Your task to perform on an android device: Show me popular videos on Youtube Image 0: 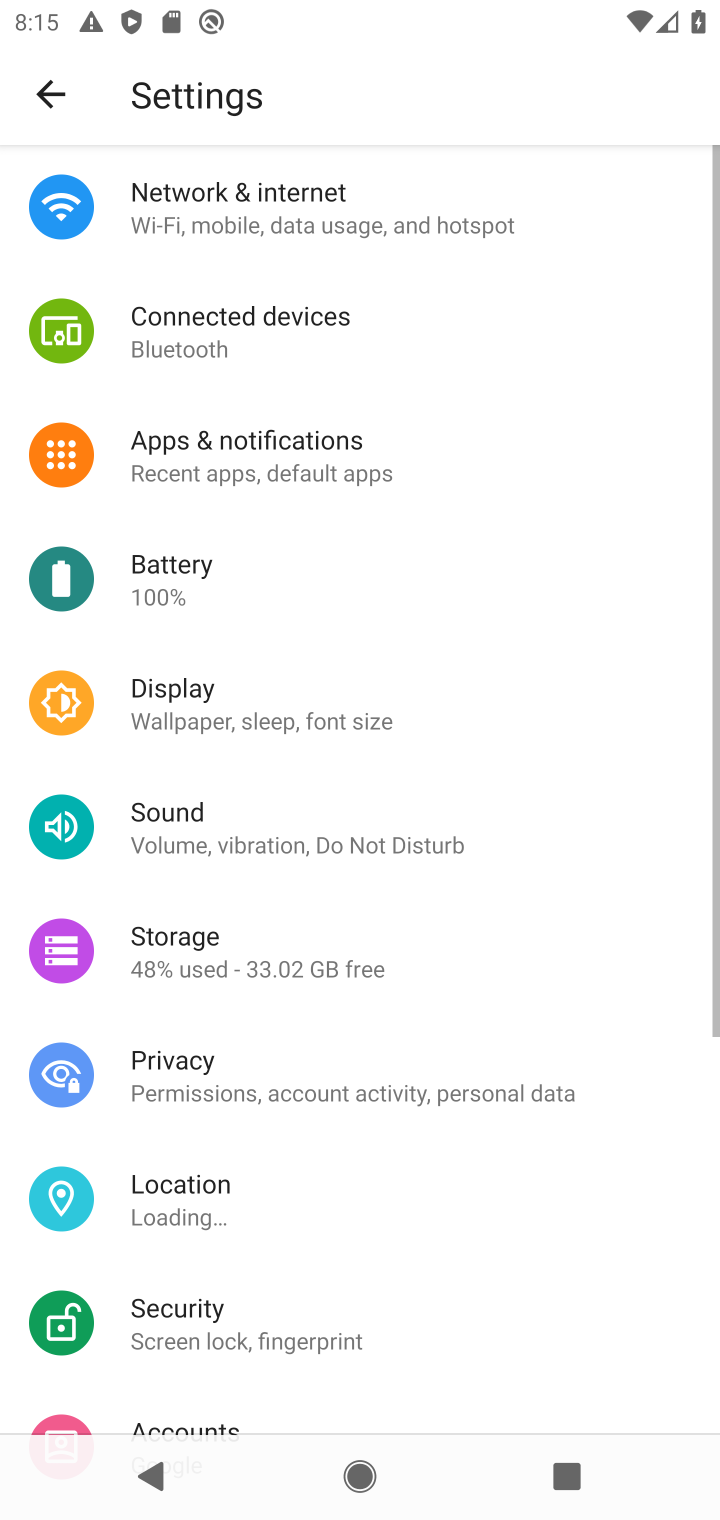
Step 0: press back button
Your task to perform on an android device: Show me popular videos on Youtube Image 1: 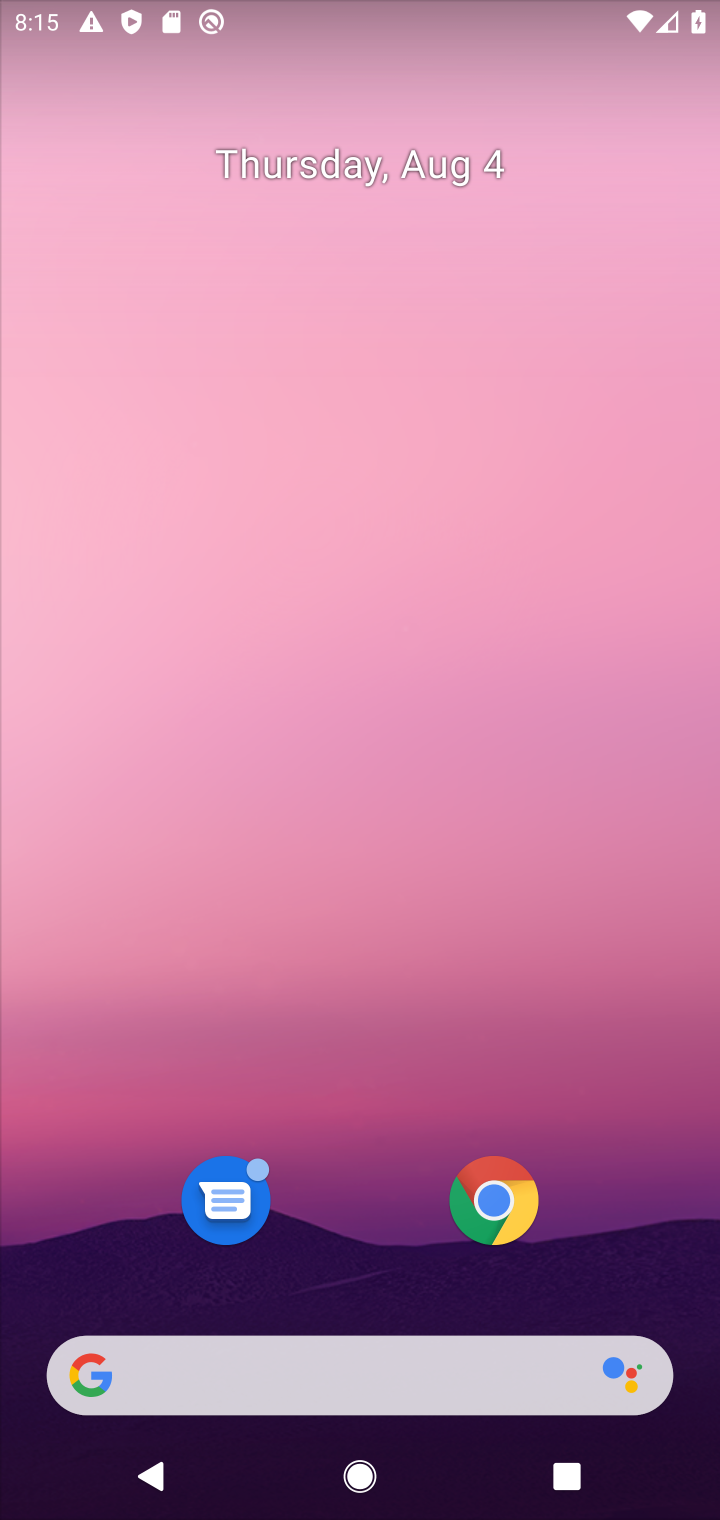
Step 1: click (477, 126)
Your task to perform on an android device: Show me popular videos on Youtube Image 2: 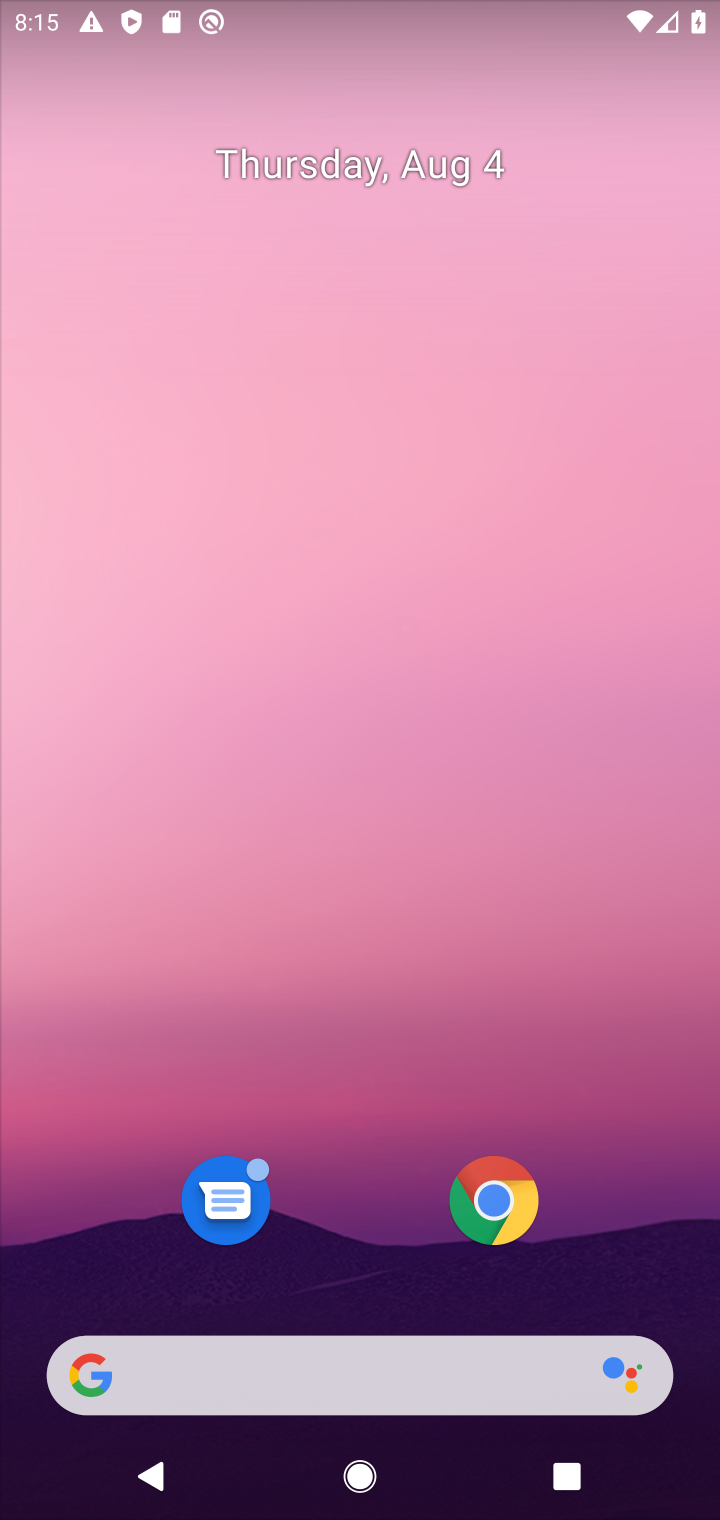
Step 2: click (338, 357)
Your task to perform on an android device: Show me popular videos on Youtube Image 3: 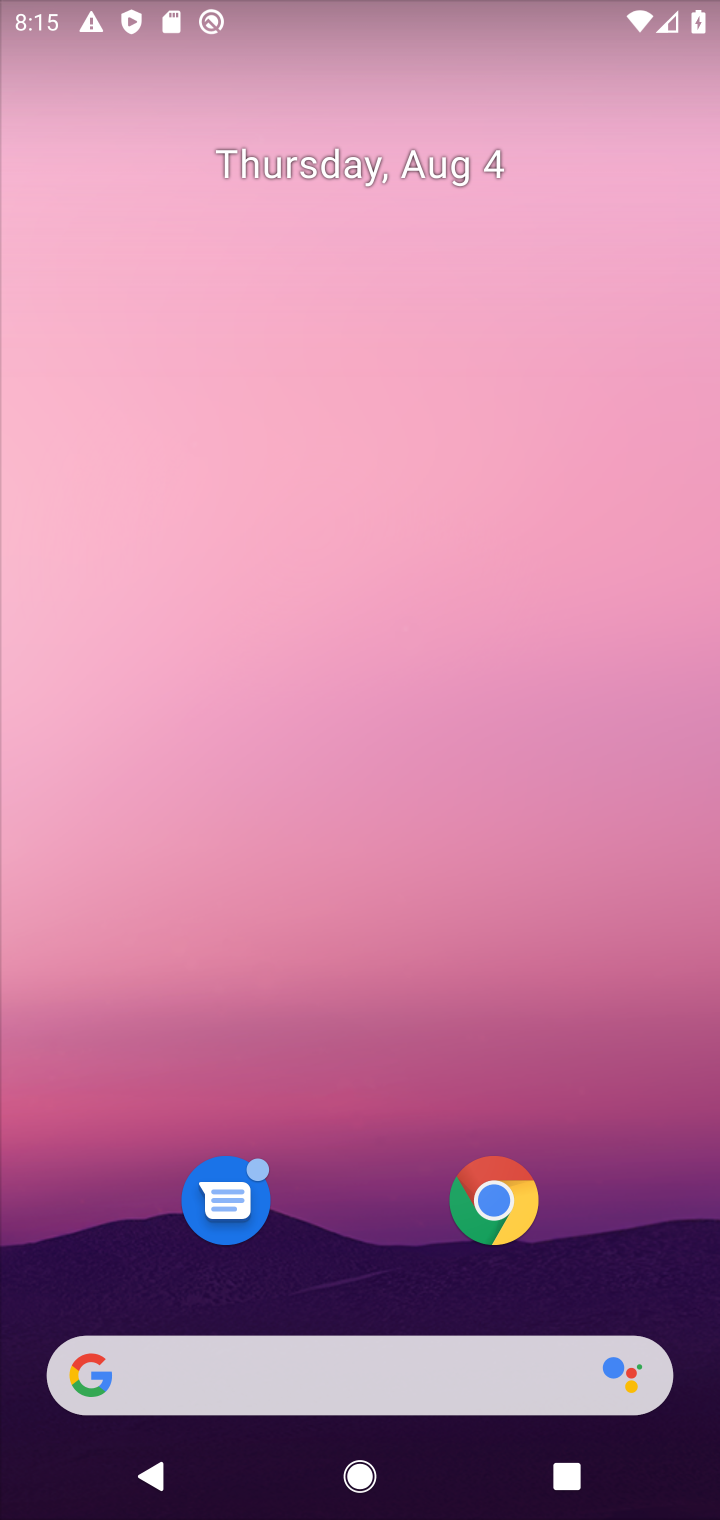
Step 3: click (344, 410)
Your task to perform on an android device: Show me popular videos on Youtube Image 4: 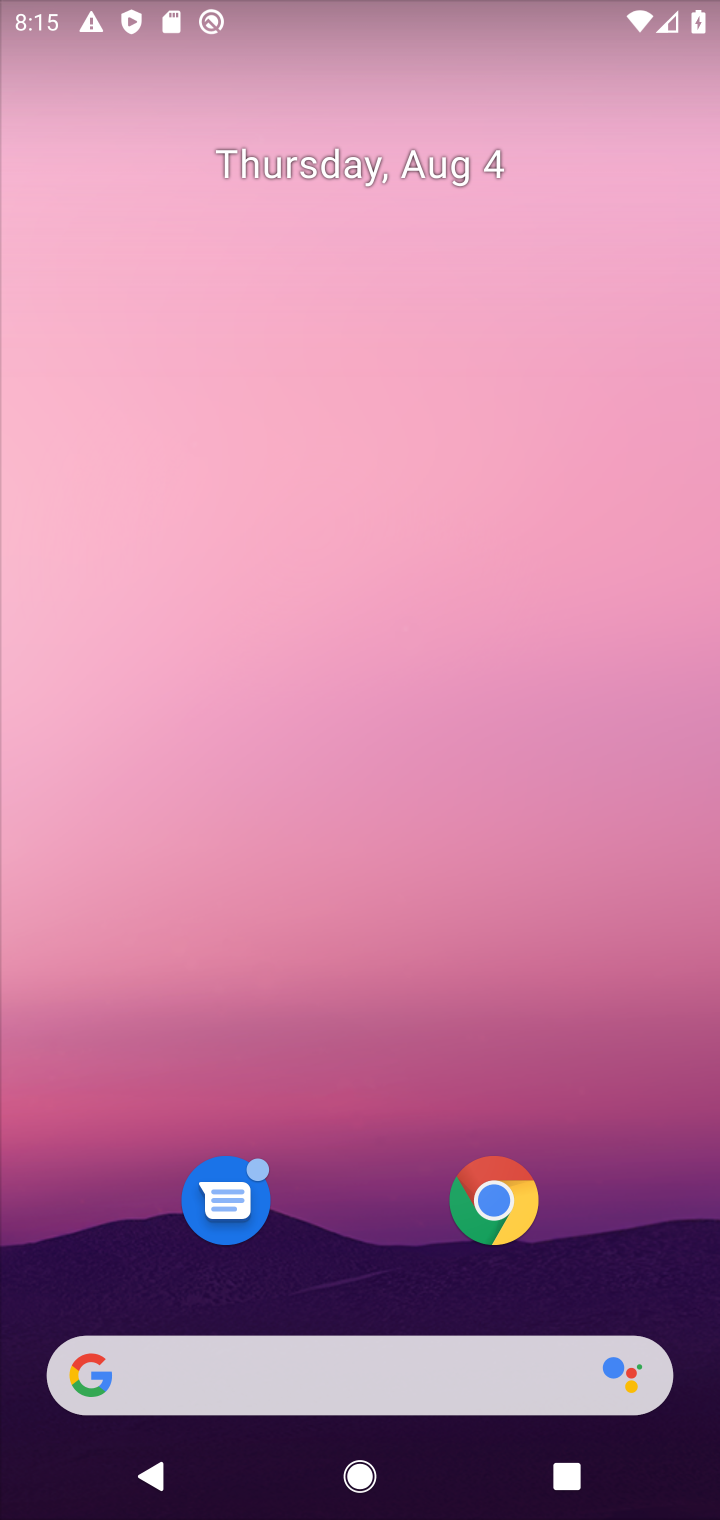
Step 4: click (314, 216)
Your task to perform on an android device: Show me popular videos on Youtube Image 5: 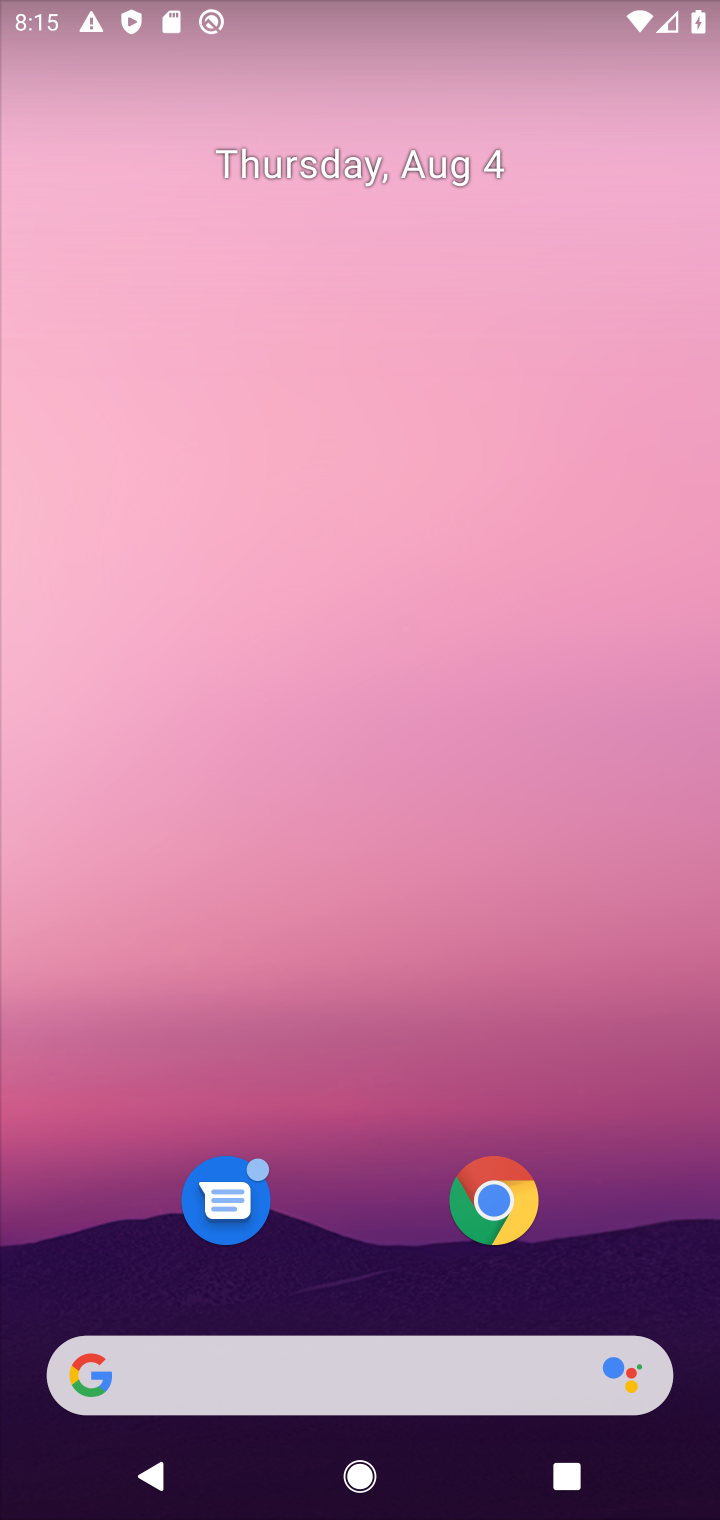
Step 5: drag from (327, 1228) to (388, 294)
Your task to perform on an android device: Show me popular videos on Youtube Image 6: 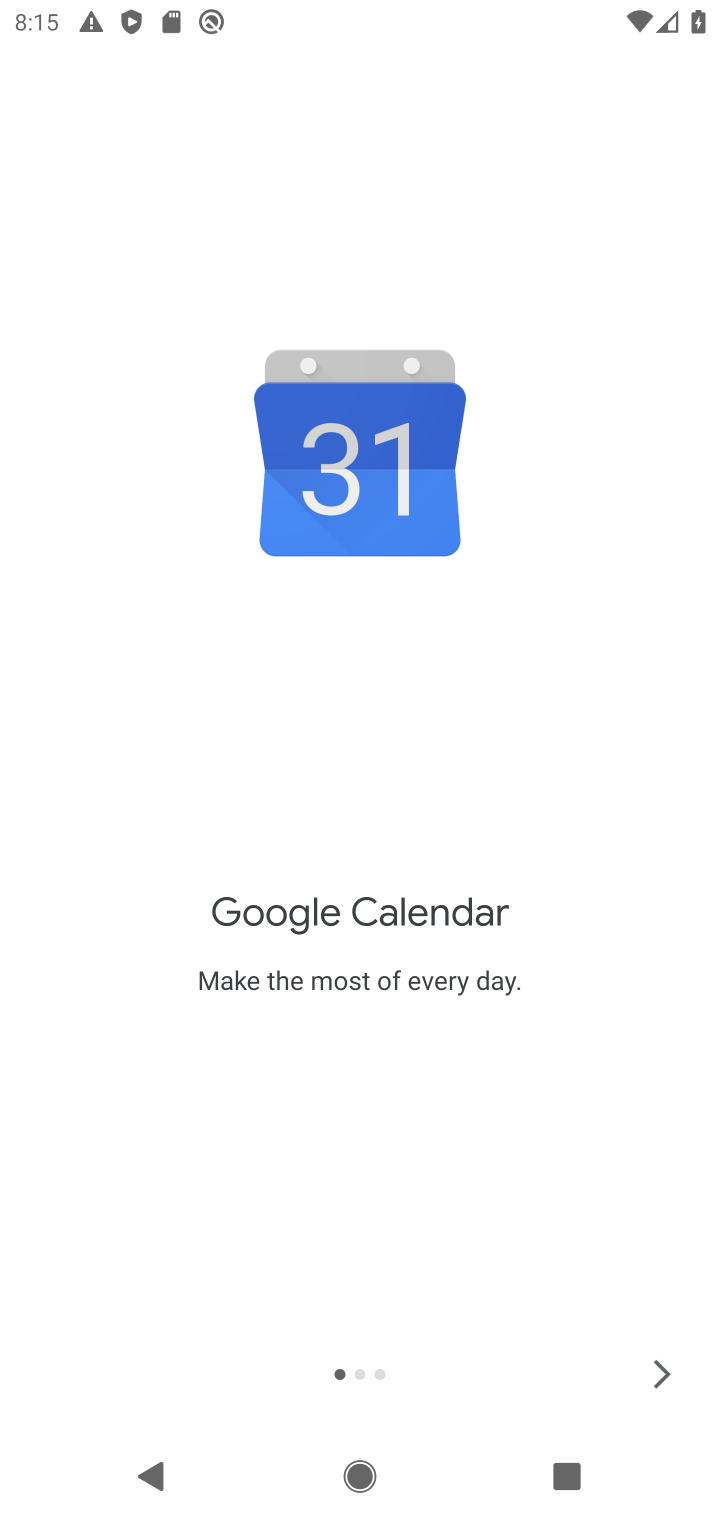
Step 6: press back button
Your task to perform on an android device: Show me popular videos on Youtube Image 7: 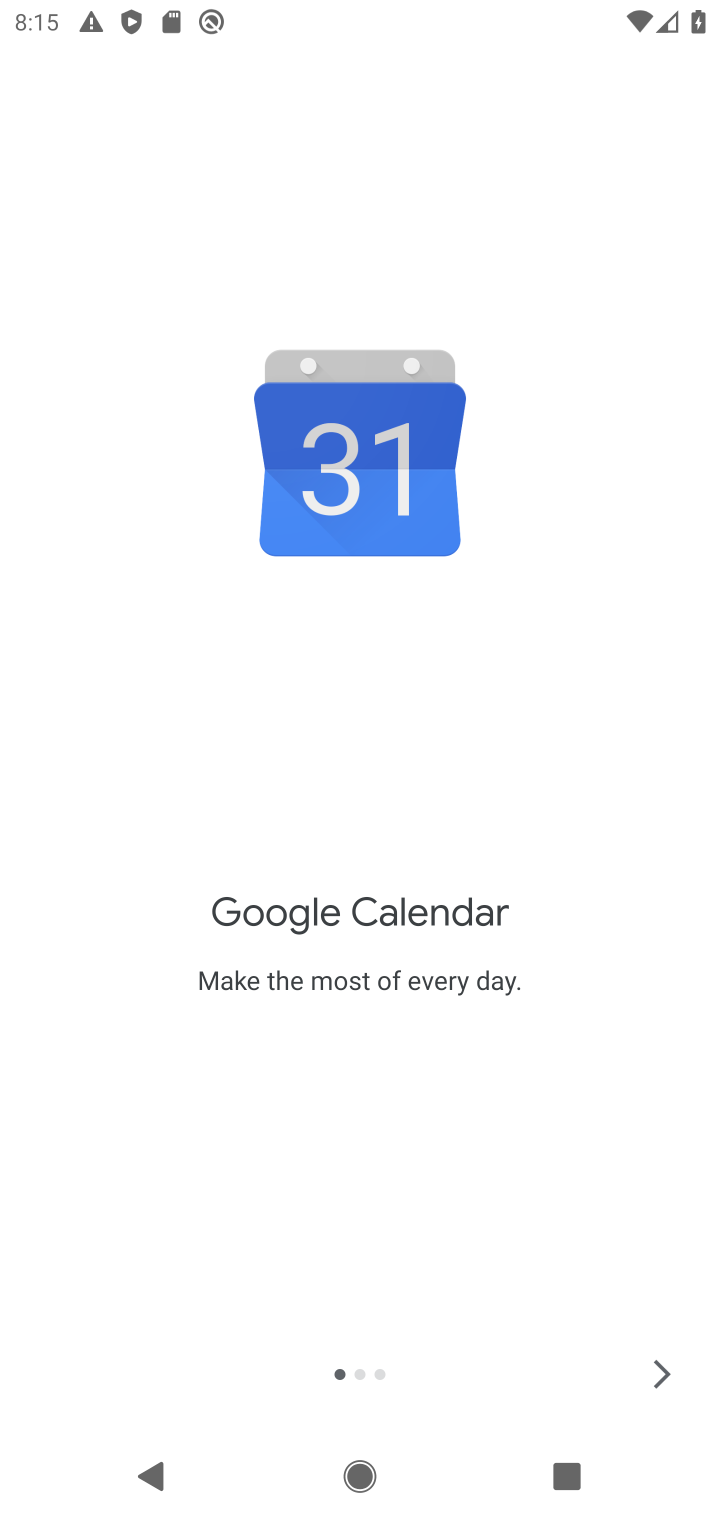
Step 7: press back button
Your task to perform on an android device: Show me popular videos on Youtube Image 8: 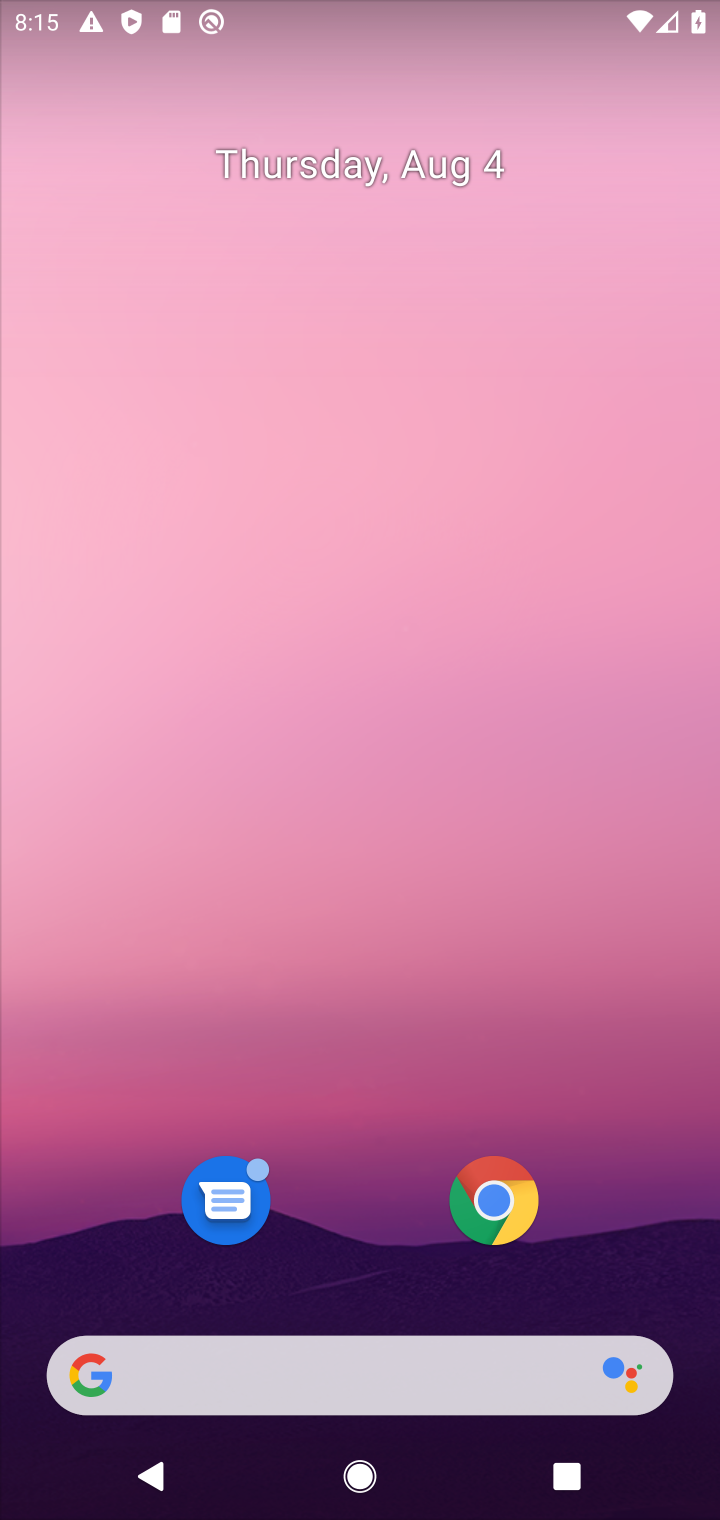
Step 8: drag from (335, 523) to (248, 436)
Your task to perform on an android device: Show me popular videos on Youtube Image 9: 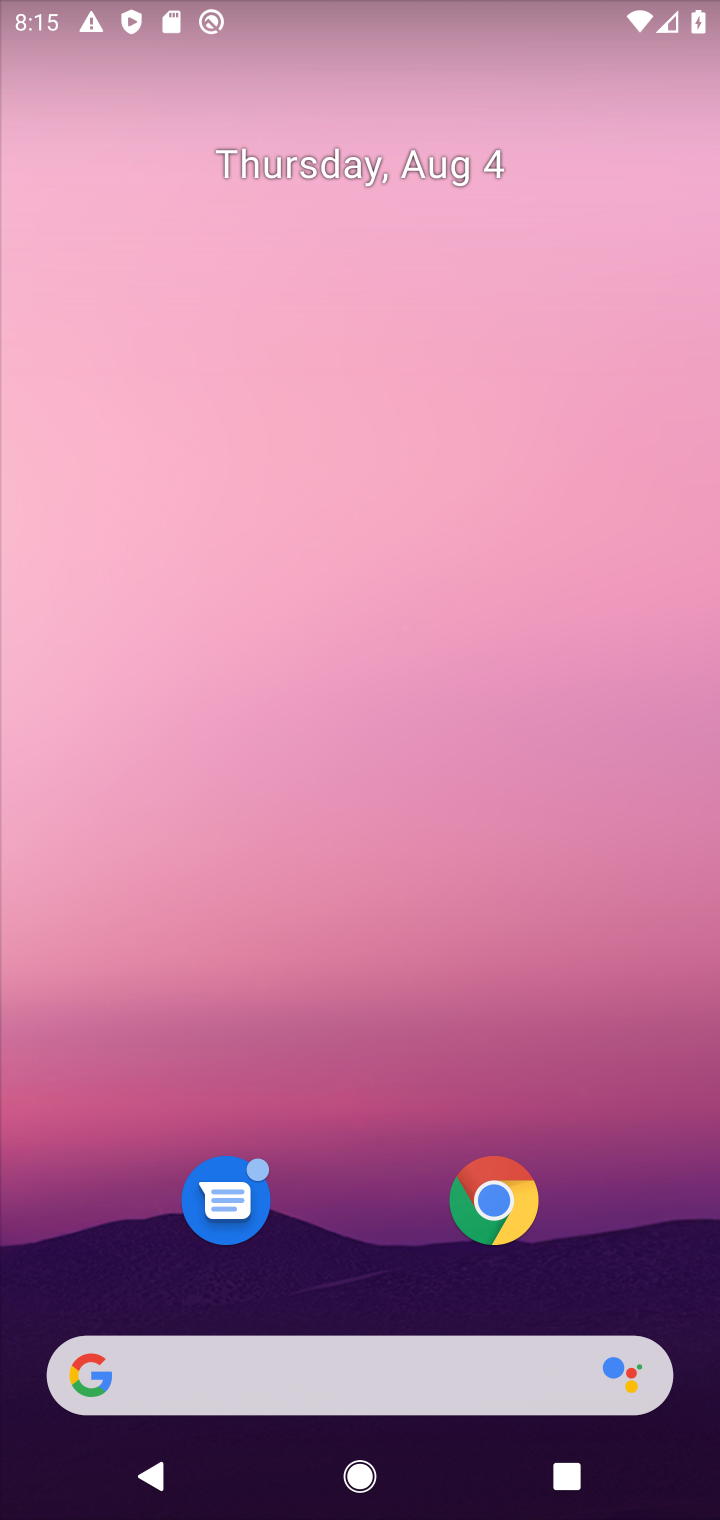
Step 9: click (351, 455)
Your task to perform on an android device: Show me popular videos on Youtube Image 10: 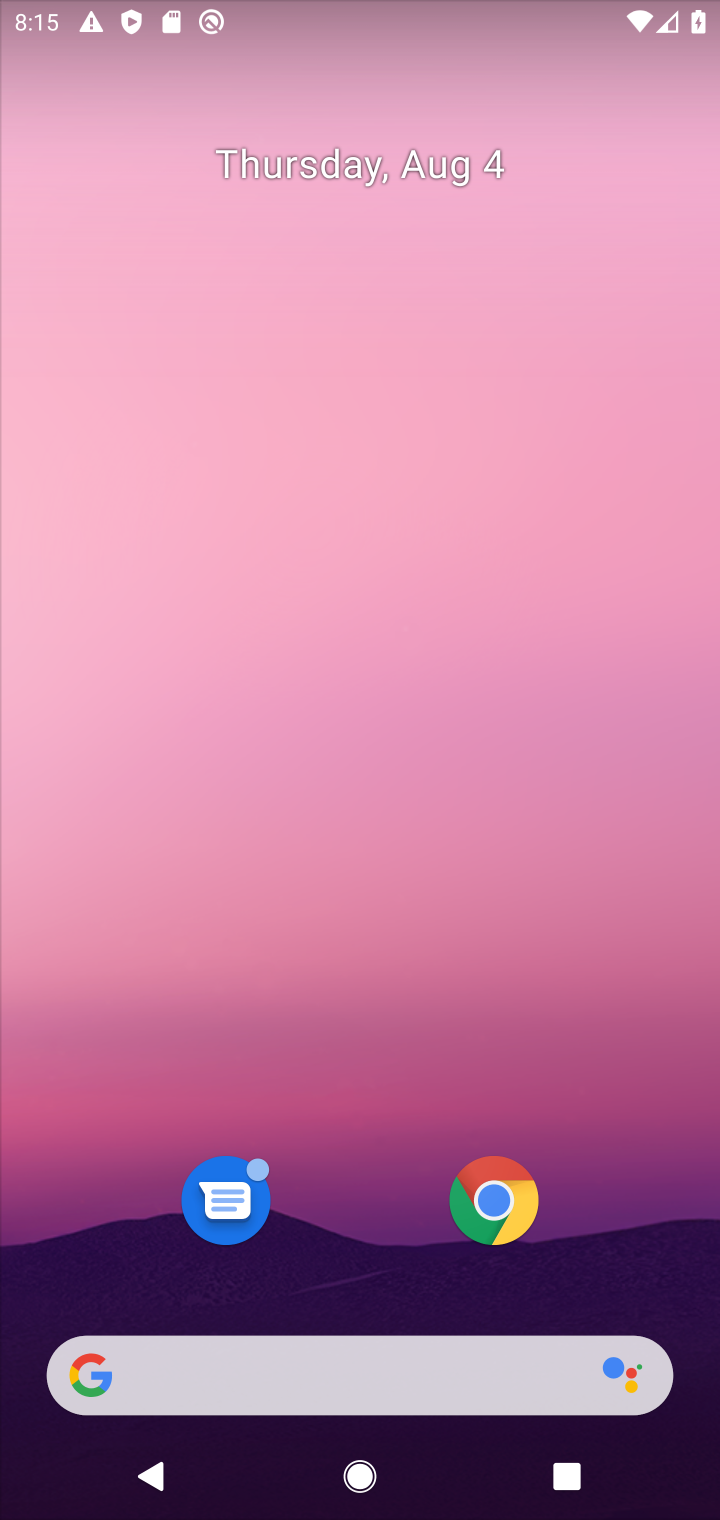
Step 10: drag from (572, 827) to (446, 349)
Your task to perform on an android device: Show me popular videos on Youtube Image 11: 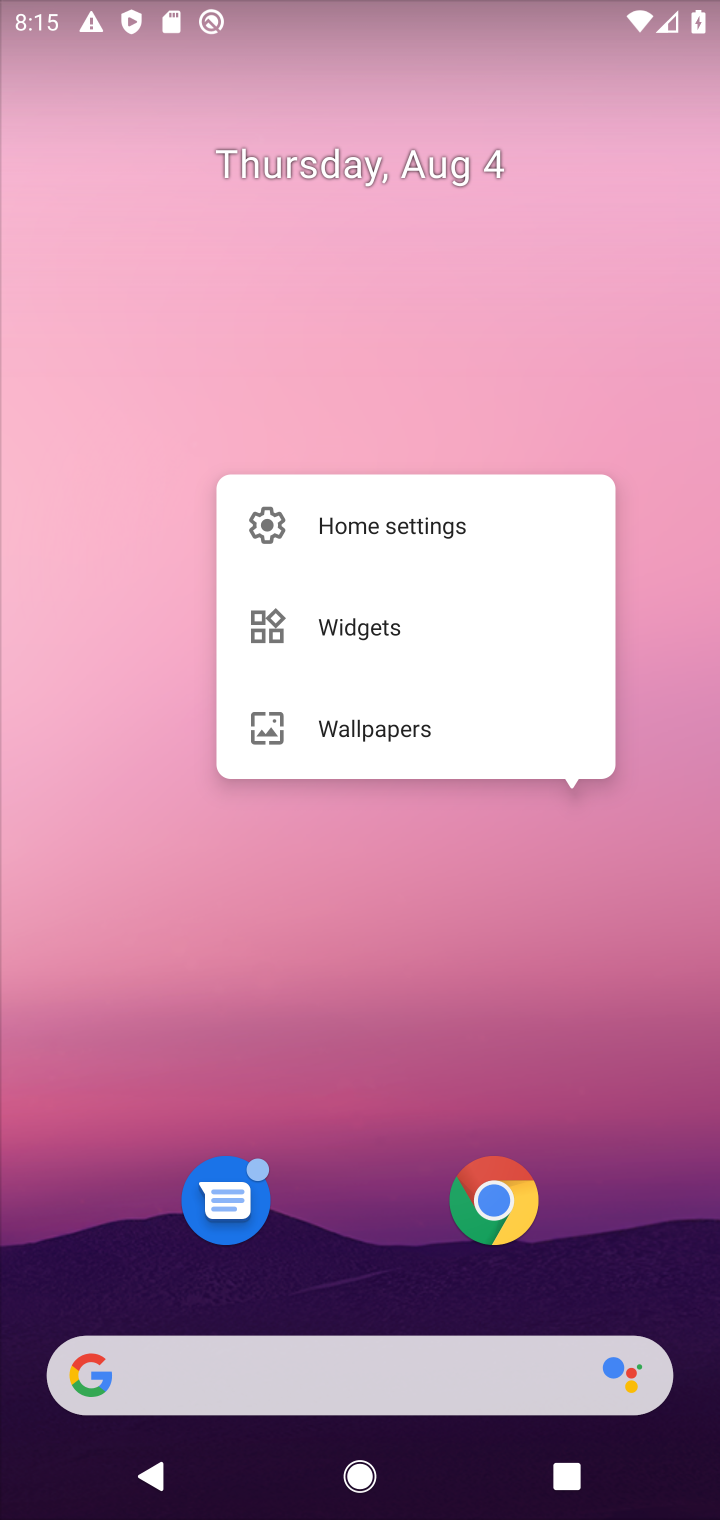
Step 11: click (159, 46)
Your task to perform on an android device: Show me popular videos on Youtube Image 12: 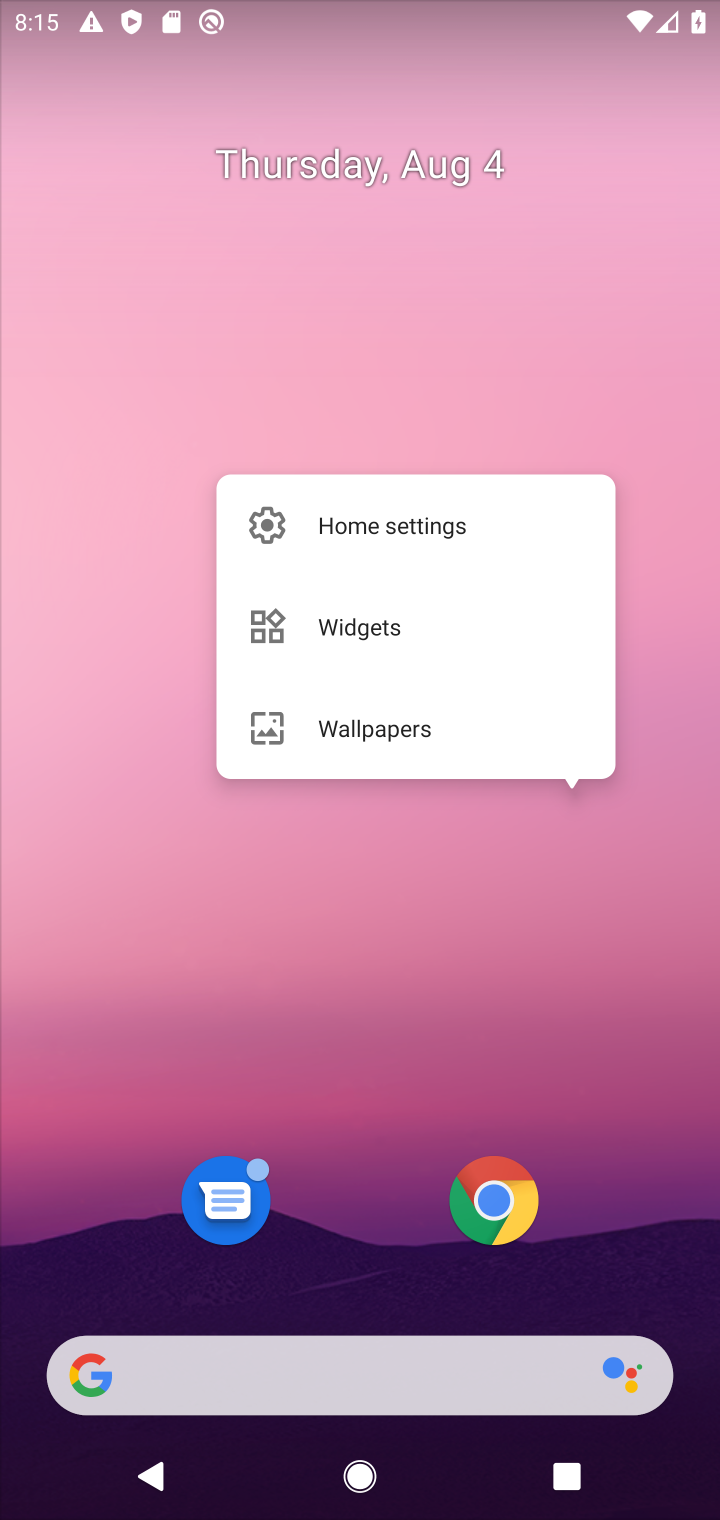
Step 12: drag from (133, 776) to (165, 397)
Your task to perform on an android device: Show me popular videos on Youtube Image 13: 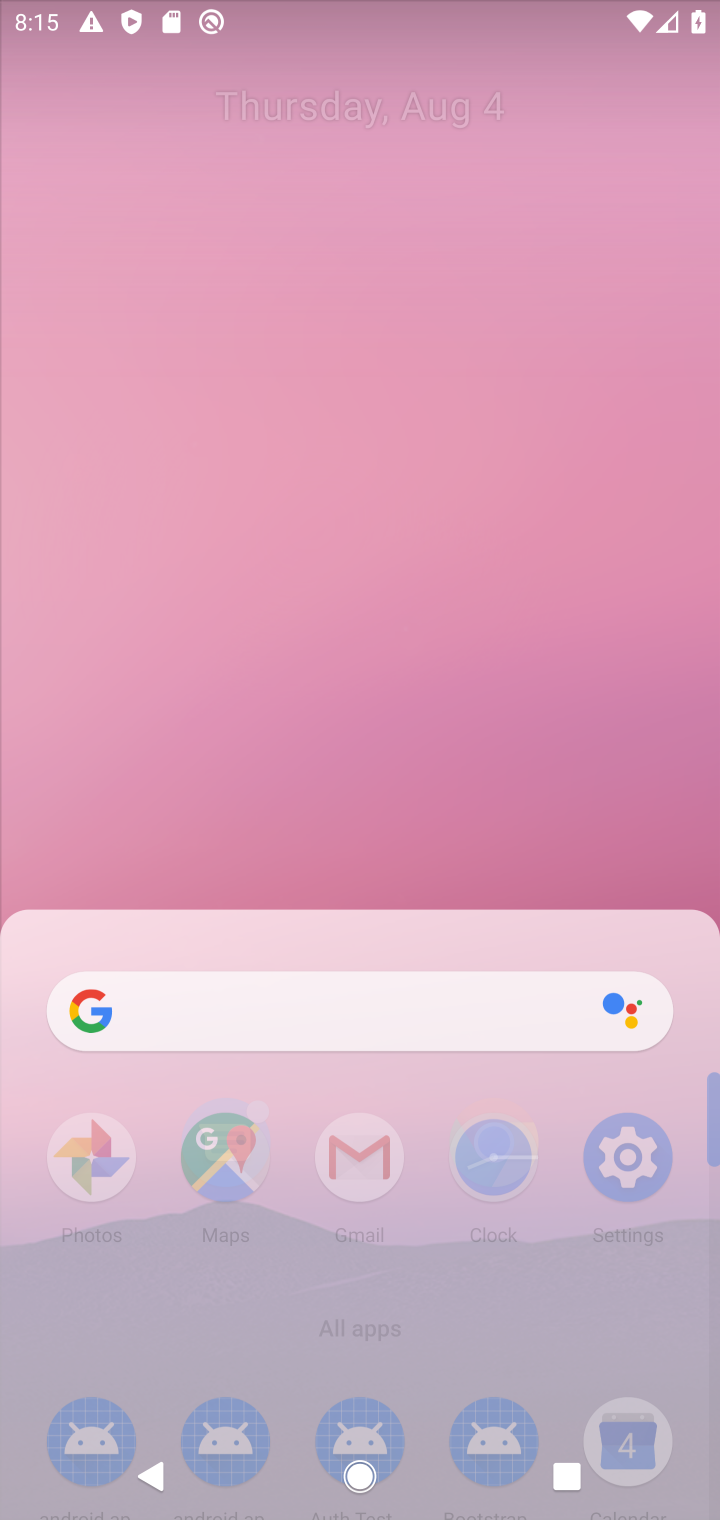
Step 13: drag from (373, 1116) to (197, 1)
Your task to perform on an android device: Show me popular videos on Youtube Image 14: 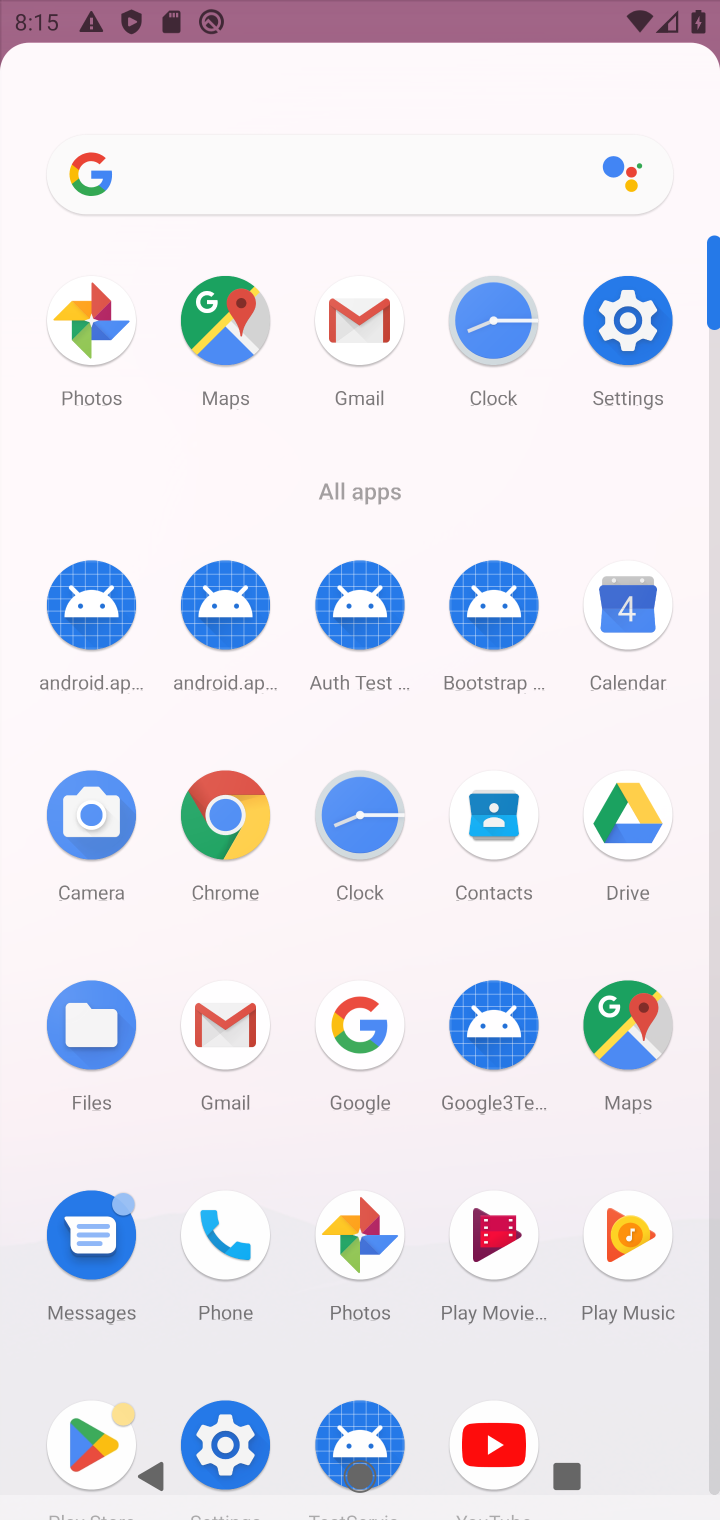
Step 14: drag from (426, 954) to (333, 190)
Your task to perform on an android device: Show me popular videos on Youtube Image 15: 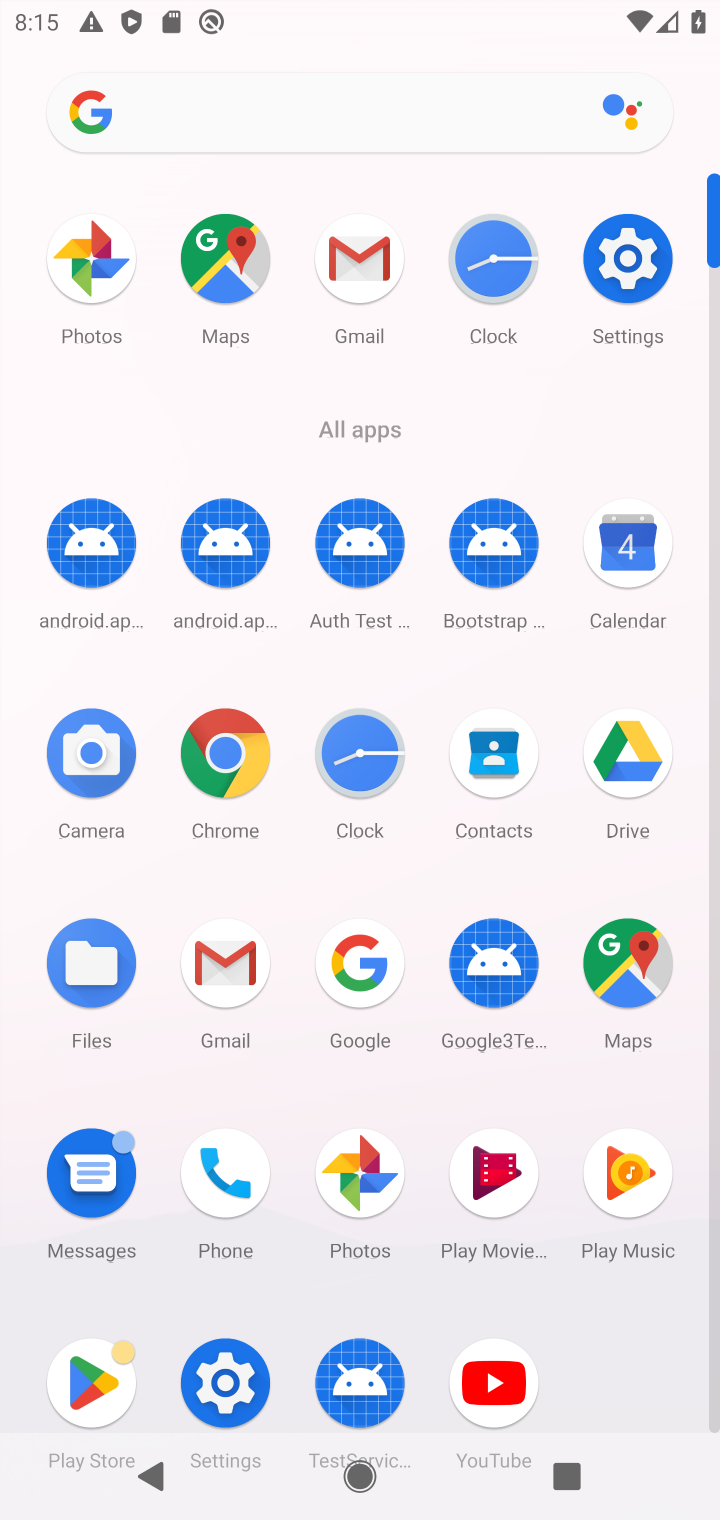
Step 15: click (504, 1368)
Your task to perform on an android device: Show me popular videos on Youtube Image 16: 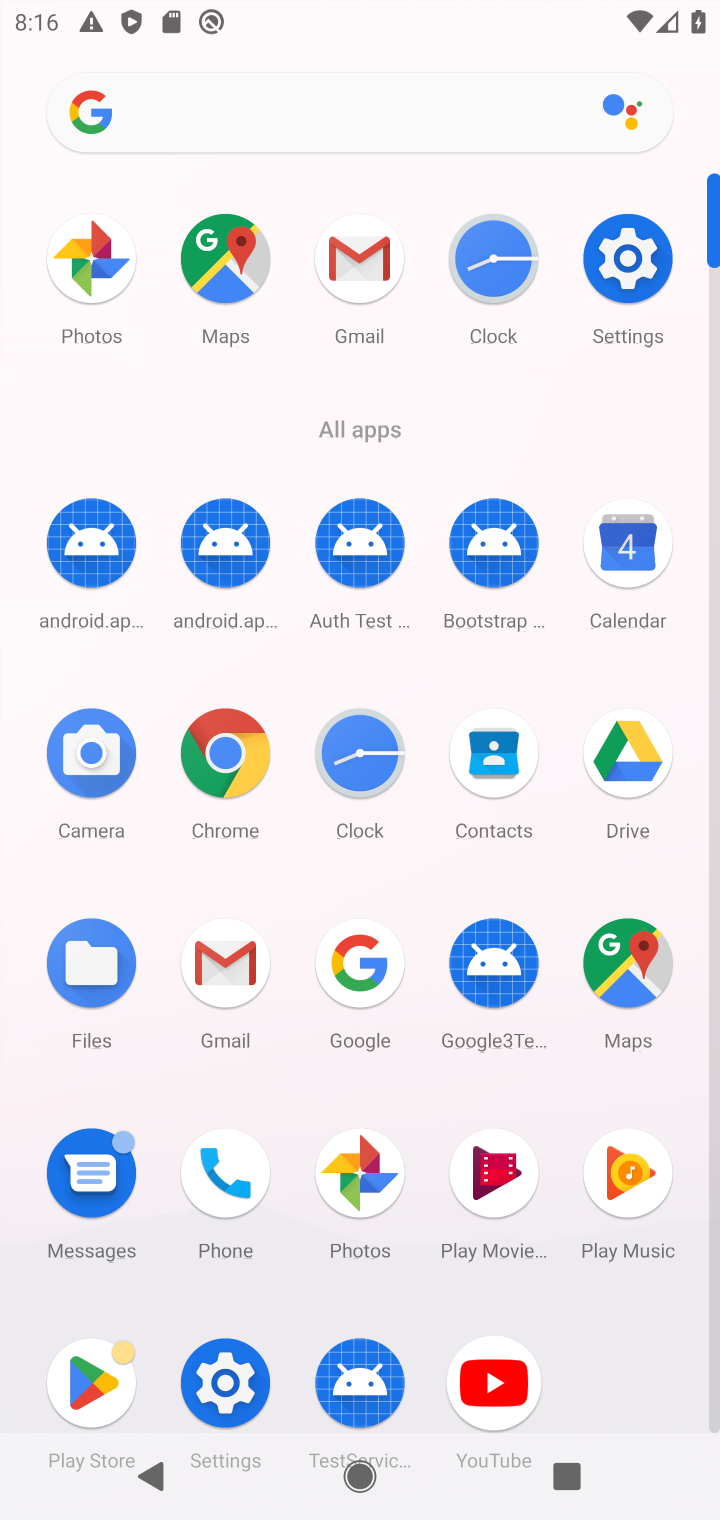
Step 16: click (504, 1368)
Your task to perform on an android device: Show me popular videos on Youtube Image 17: 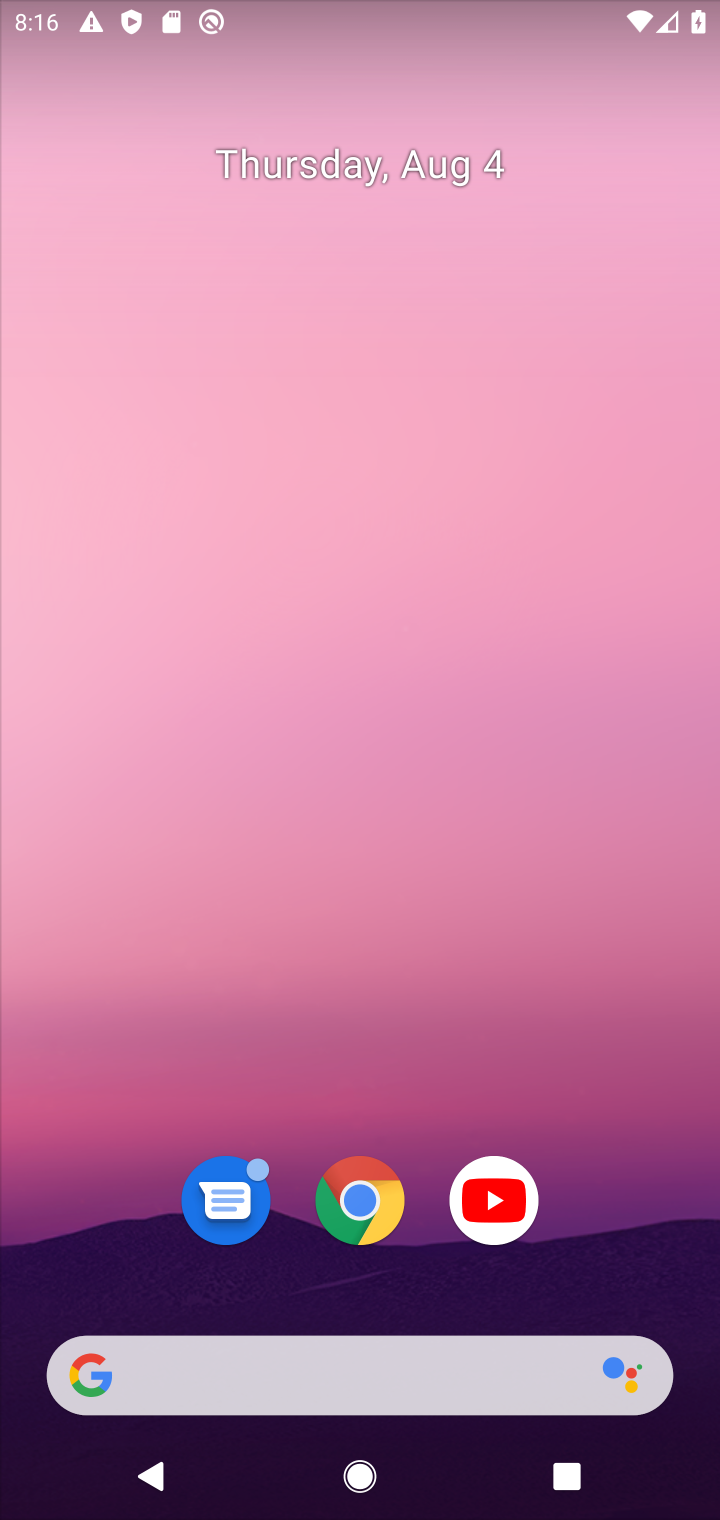
Step 17: click (496, 1196)
Your task to perform on an android device: Show me popular videos on Youtube Image 18: 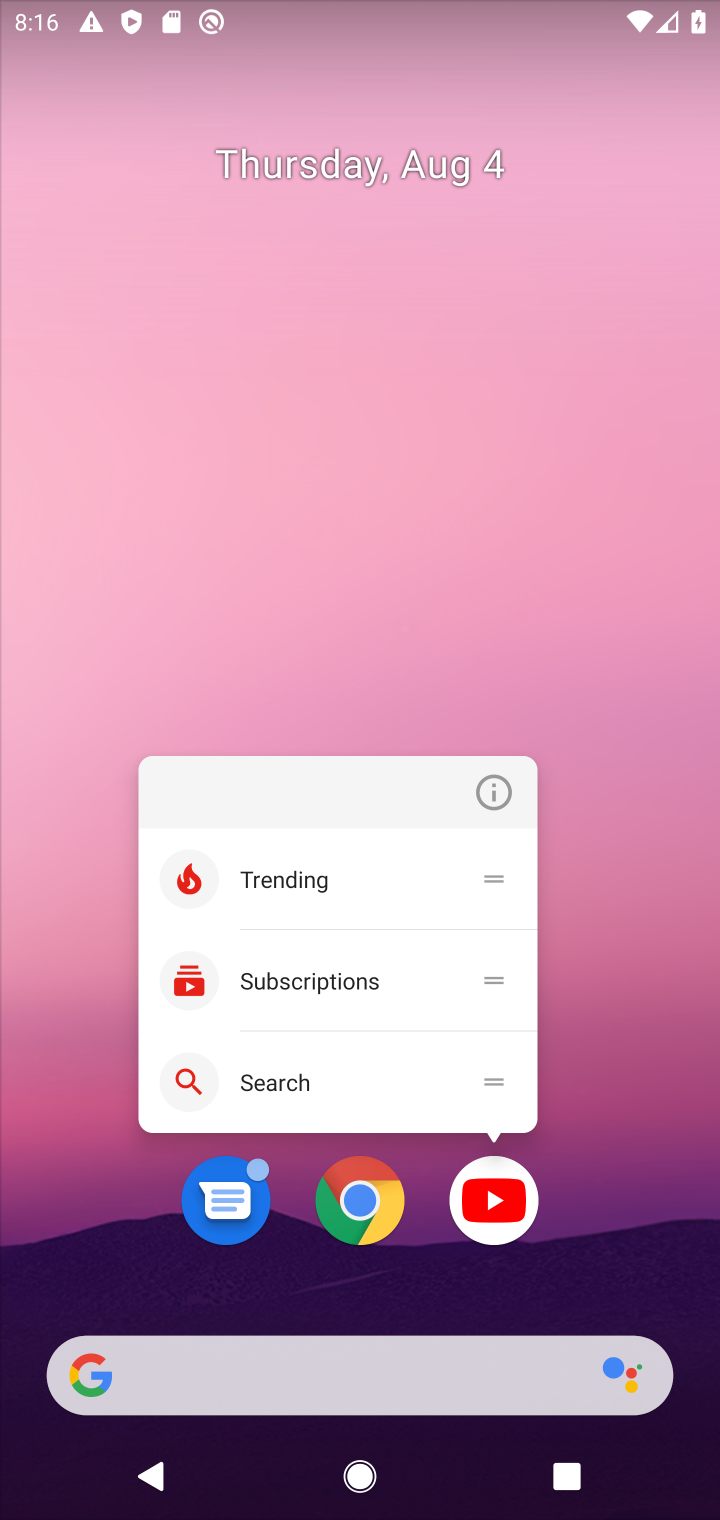
Step 18: click (276, 899)
Your task to perform on an android device: Show me popular videos on Youtube Image 19: 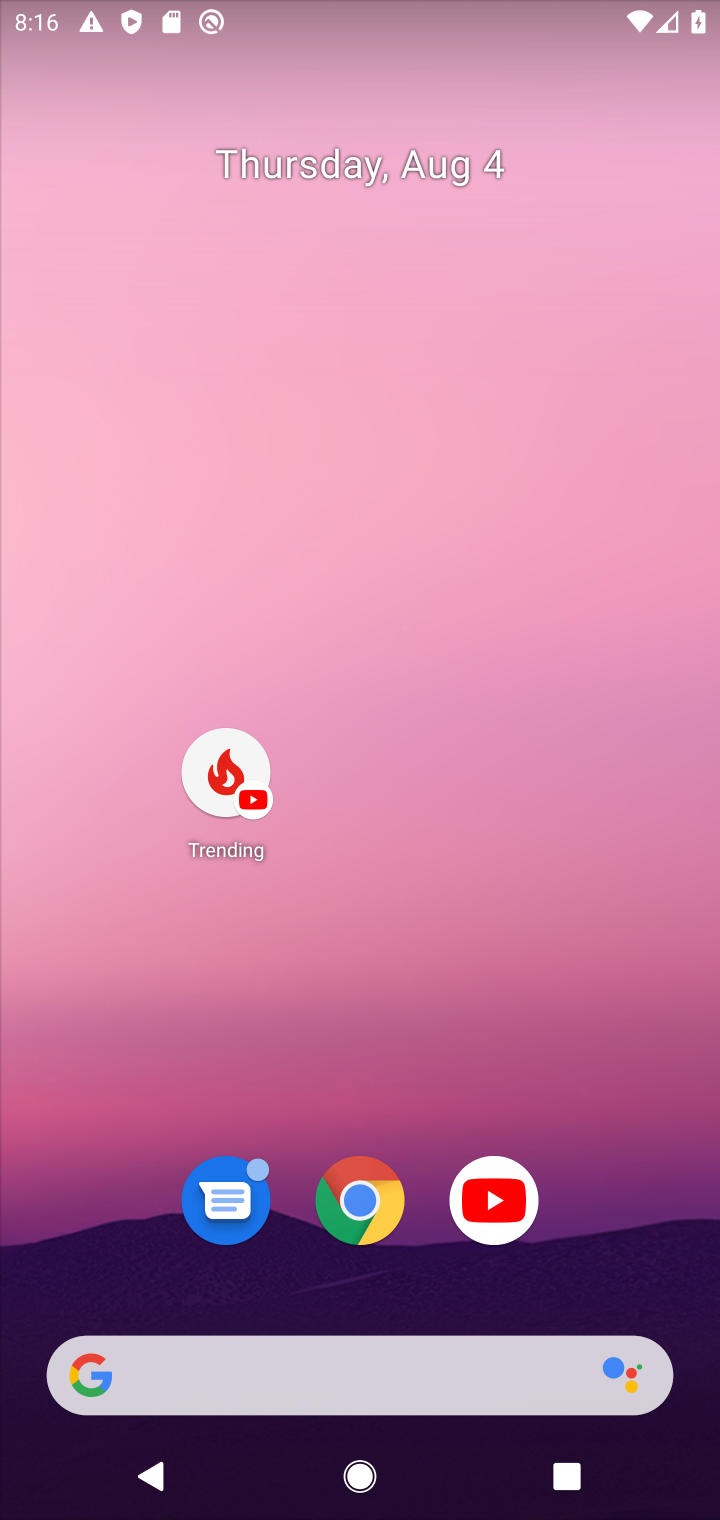
Step 19: task complete